Your task to perform on an android device: turn off data saver in the chrome app Image 0: 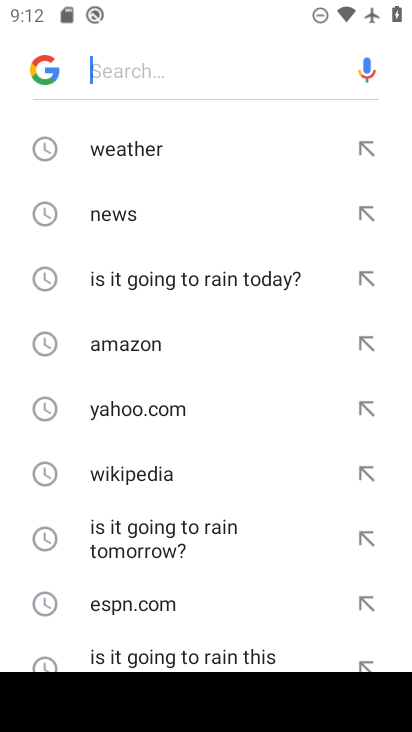
Step 0: press home button
Your task to perform on an android device: turn off data saver in the chrome app Image 1: 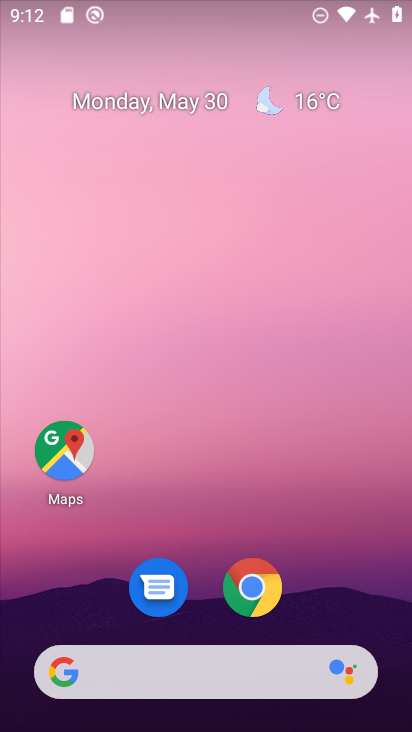
Step 1: click (252, 590)
Your task to perform on an android device: turn off data saver in the chrome app Image 2: 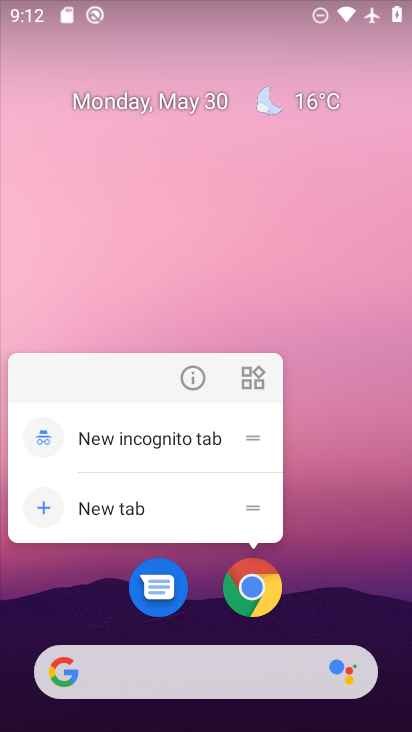
Step 2: click (252, 590)
Your task to perform on an android device: turn off data saver in the chrome app Image 3: 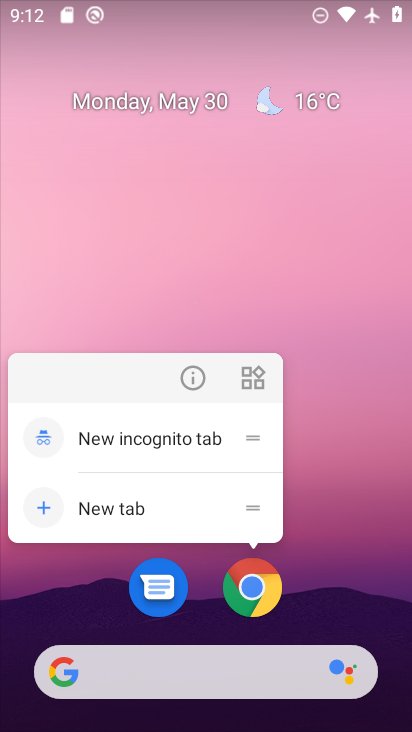
Step 3: click (252, 591)
Your task to perform on an android device: turn off data saver in the chrome app Image 4: 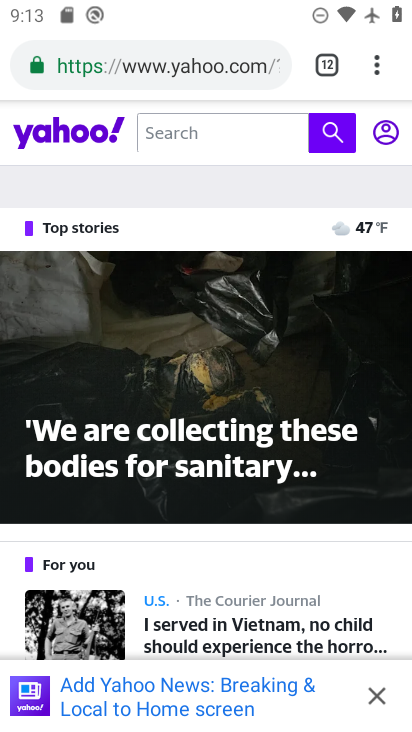
Step 4: drag from (375, 68) to (226, 633)
Your task to perform on an android device: turn off data saver in the chrome app Image 5: 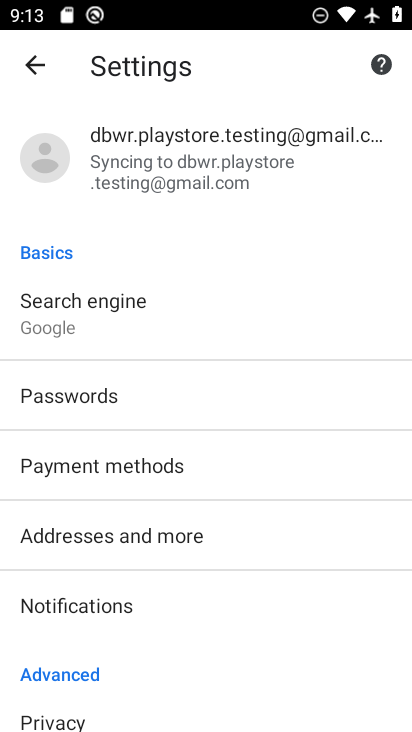
Step 5: drag from (172, 688) to (251, 238)
Your task to perform on an android device: turn off data saver in the chrome app Image 6: 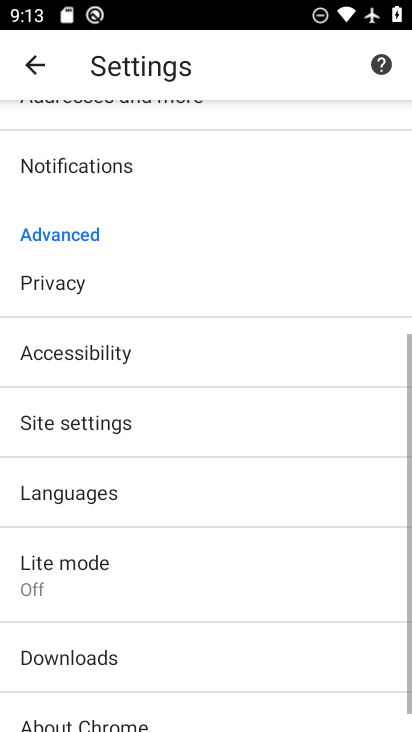
Step 6: click (85, 597)
Your task to perform on an android device: turn off data saver in the chrome app Image 7: 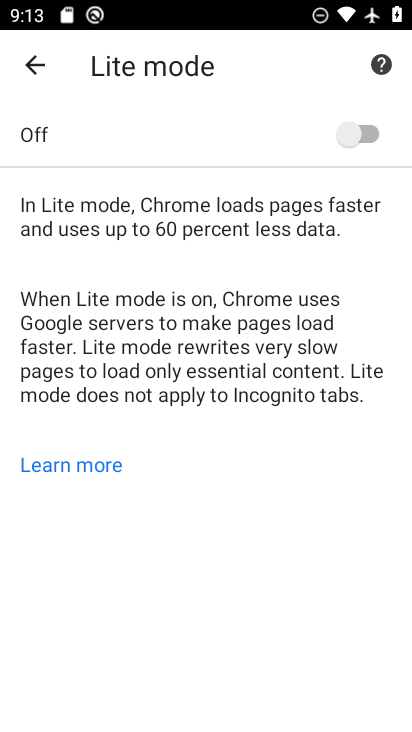
Step 7: task complete